Your task to perform on an android device: Go to ESPN.com Image 0: 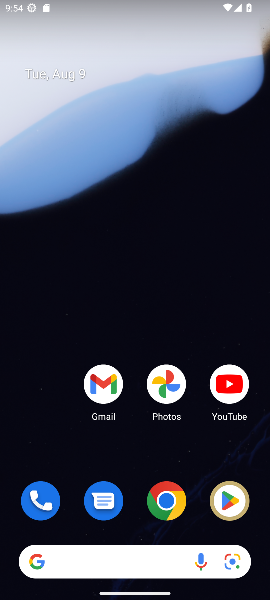
Step 0: click (166, 508)
Your task to perform on an android device: Go to ESPN.com Image 1: 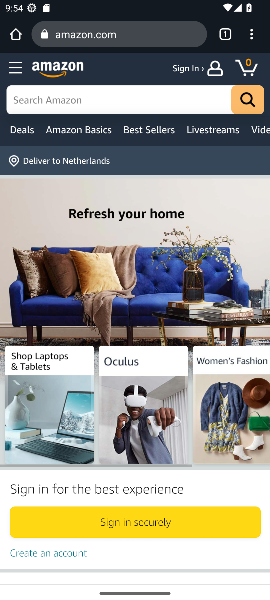
Step 1: click (92, 34)
Your task to perform on an android device: Go to ESPN.com Image 2: 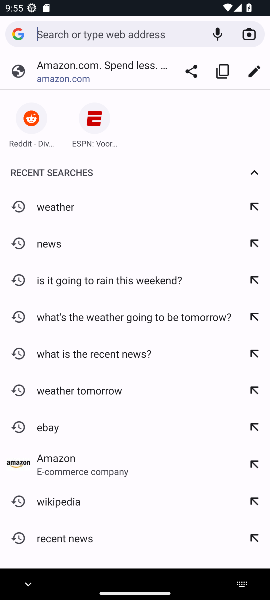
Step 2: type "www.espn.com"
Your task to perform on an android device: Go to ESPN.com Image 3: 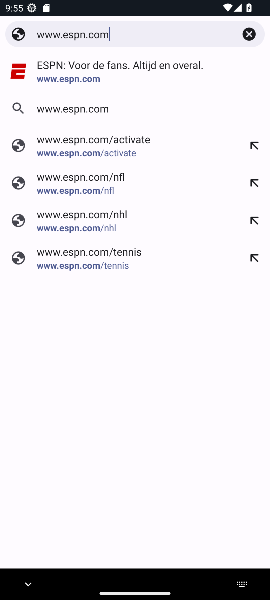
Step 3: click (69, 76)
Your task to perform on an android device: Go to ESPN.com Image 4: 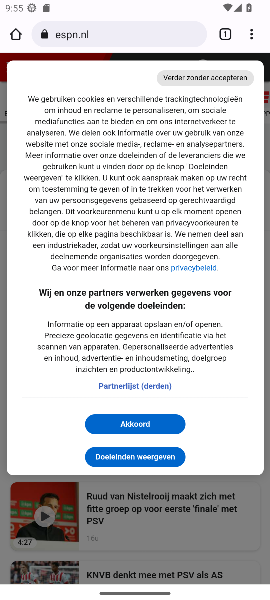
Step 4: task complete